Your task to perform on an android device: toggle location history Image 0: 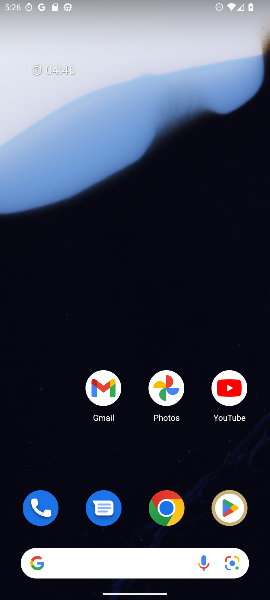
Step 0: drag from (138, 531) to (92, 209)
Your task to perform on an android device: toggle location history Image 1: 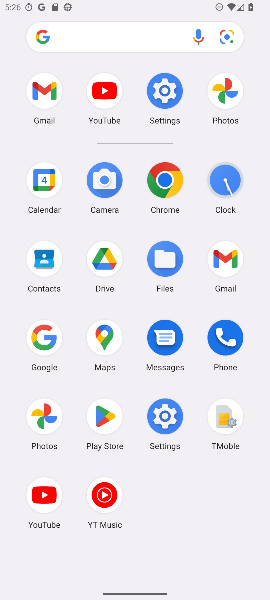
Step 1: click (169, 409)
Your task to perform on an android device: toggle location history Image 2: 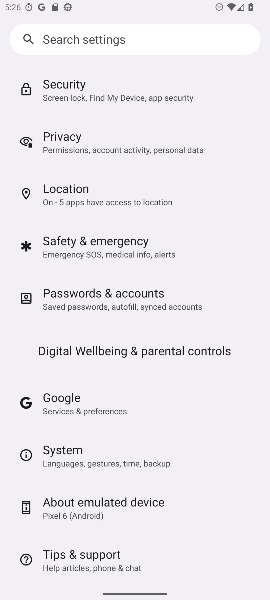
Step 2: drag from (99, 456) to (155, 276)
Your task to perform on an android device: toggle location history Image 3: 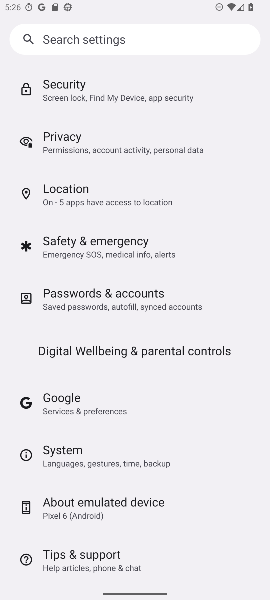
Step 3: click (137, 191)
Your task to perform on an android device: toggle location history Image 4: 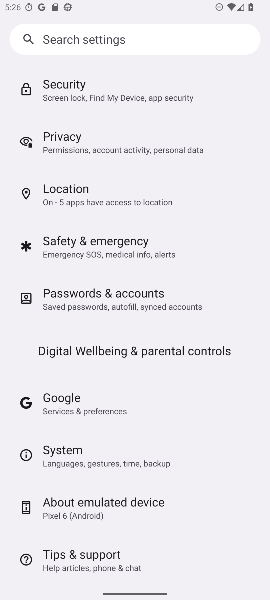
Step 4: click (137, 191)
Your task to perform on an android device: toggle location history Image 5: 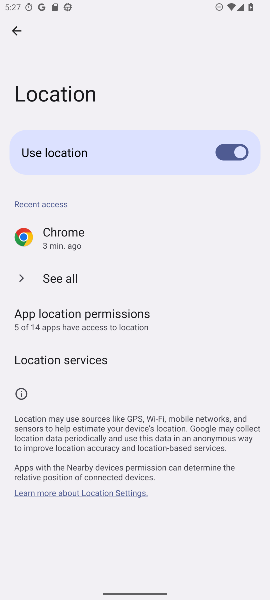
Step 5: drag from (176, 434) to (177, 161)
Your task to perform on an android device: toggle location history Image 6: 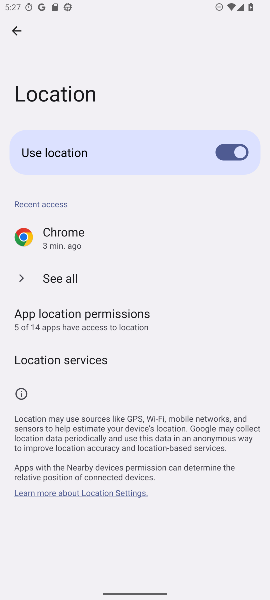
Step 6: click (73, 363)
Your task to perform on an android device: toggle location history Image 7: 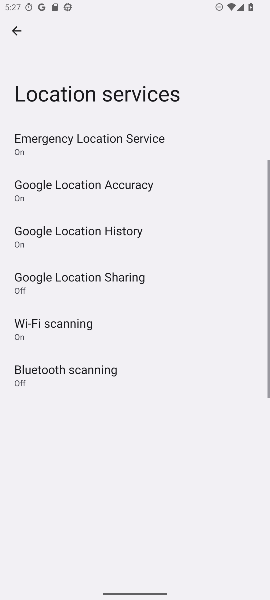
Step 7: click (88, 244)
Your task to perform on an android device: toggle location history Image 8: 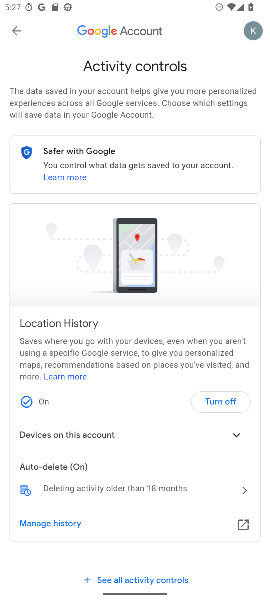
Step 8: drag from (102, 547) to (142, 261)
Your task to perform on an android device: toggle location history Image 9: 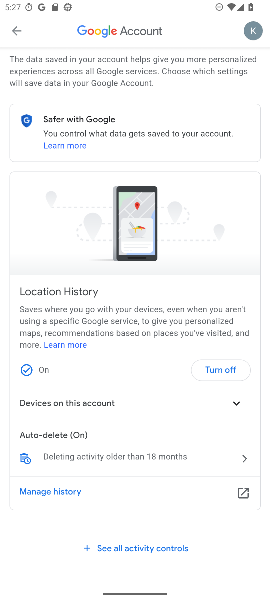
Step 9: drag from (127, 291) to (248, 248)
Your task to perform on an android device: toggle location history Image 10: 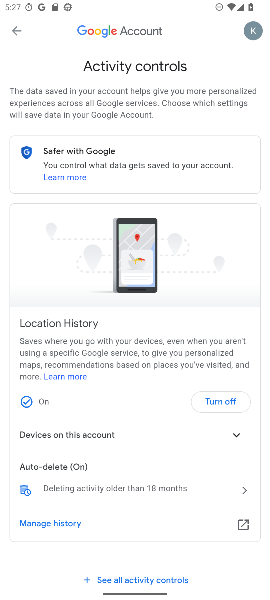
Step 10: click (215, 399)
Your task to perform on an android device: toggle location history Image 11: 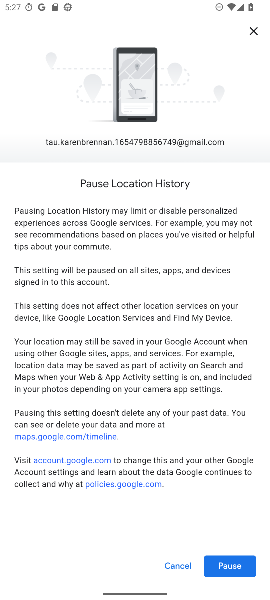
Step 11: click (228, 571)
Your task to perform on an android device: toggle location history Image 12: 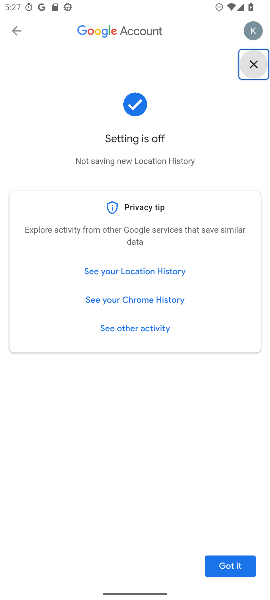
Step 12: click (237, 558)
Your task to perform on an android device: toggle location history Image 13: 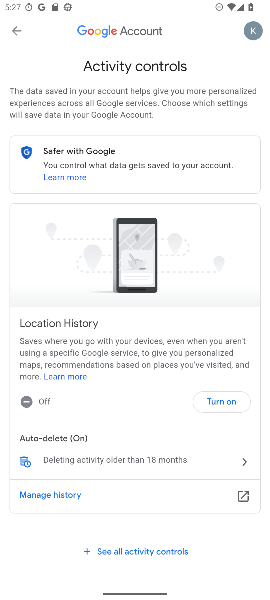
Step 13: task complete